Your task to perform on an android device: change the clock display to analog Image 0: 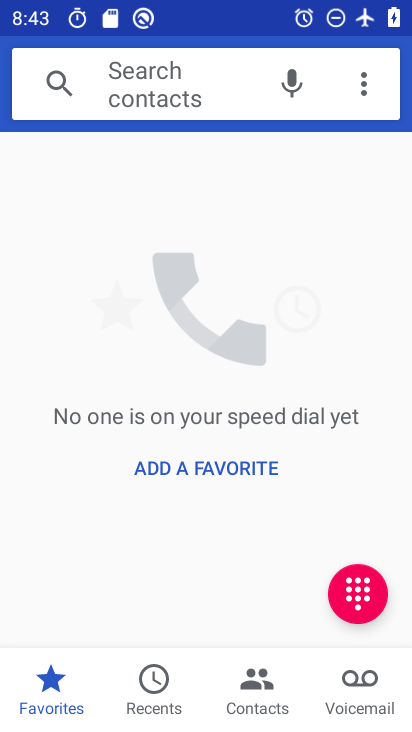
Step 0: press home button
Your task to perform on an android device: change the clock display to analog Image 1: 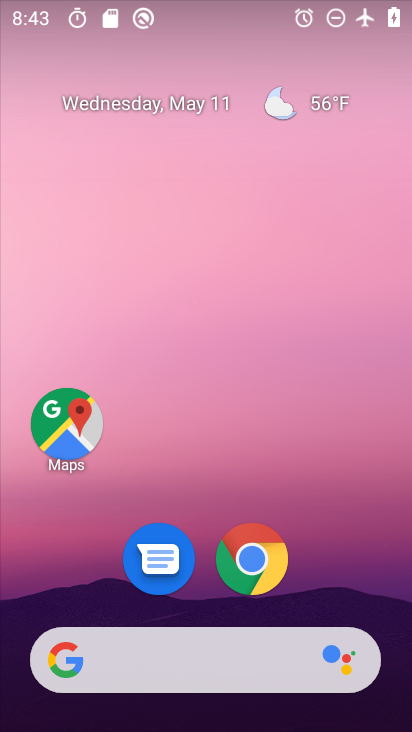
Step 1: drag from (306, 578) to (410, 331)
Your task to perform on an android device: change the clock display to analog Image 2: 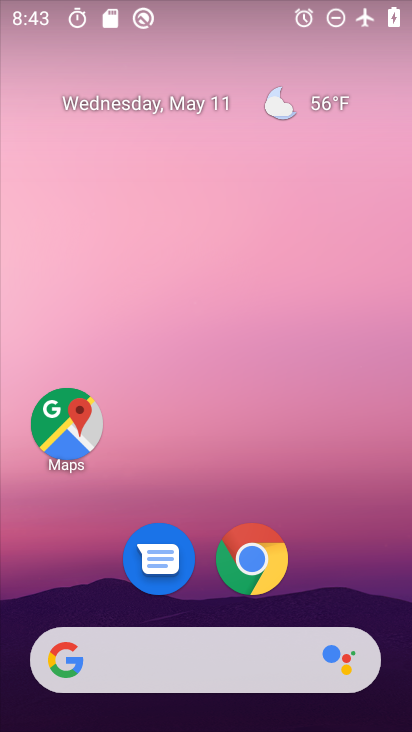
Step 2: drag from (331, 583) to (265, 5)
Your task to perform on an android device: change the clock display to analog Image 3: 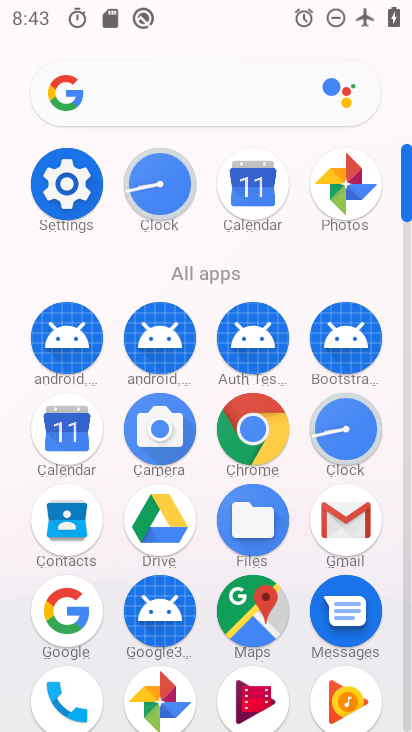
Step 3: click (162, 187)
Your task to perform on an android device: change the clock display to analog Image 4: 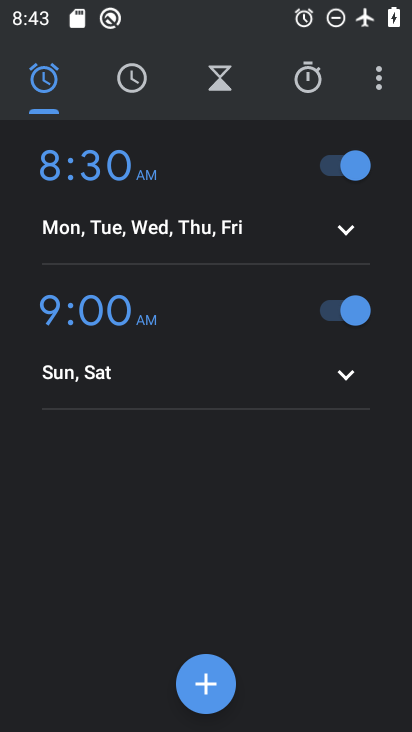
Step 4: click (383, 83)
Your task to perform on an android device: change the clock display to analog Image 5: 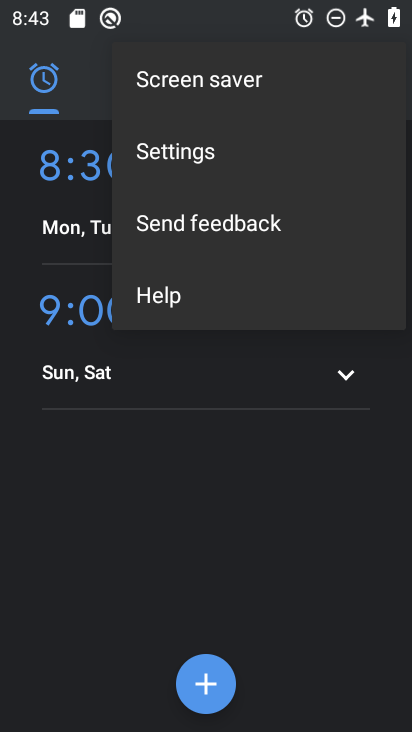
Step 5: click (175, 148)
Your task to perform on an android device: change the clock display to analog Image 6: 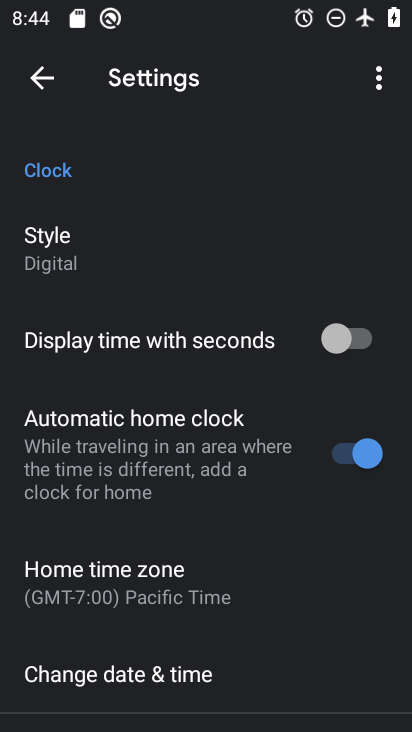
Step 6: click (83, 243)
Your task to perform on an android device: change the clock display to analog Image 7: 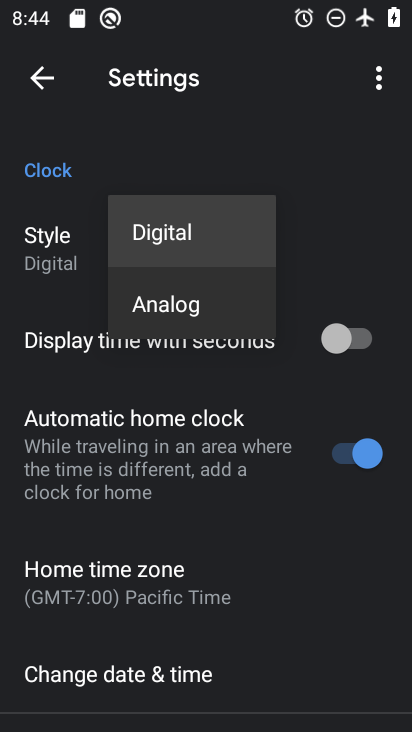
Step 7: click (153, 295)
Your task to perform on an android device: change the clock display to analog Image 8: 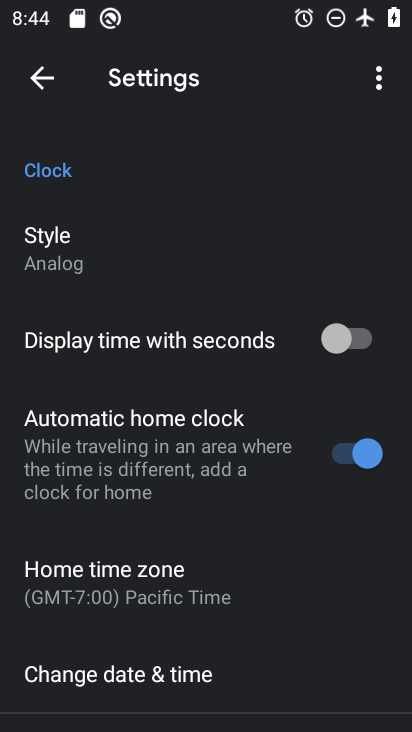
Step 8: task complete